Your task to perform on an android device: set the stopwatch Image 0: 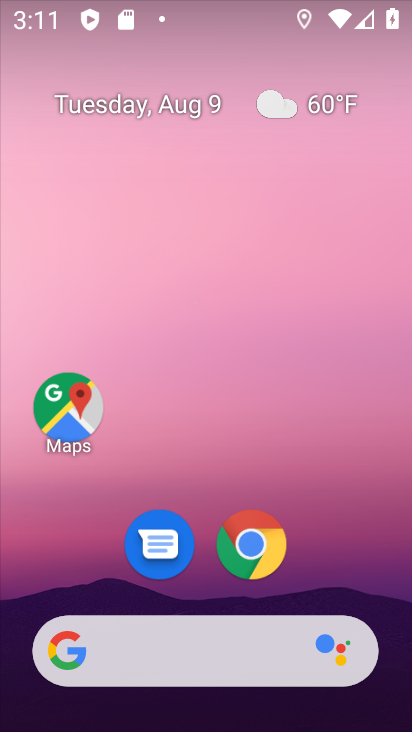
Step 0: drag from (319, 465) to (330, 114)
Your task to perform on an android device: set the stopwatch Image 1: 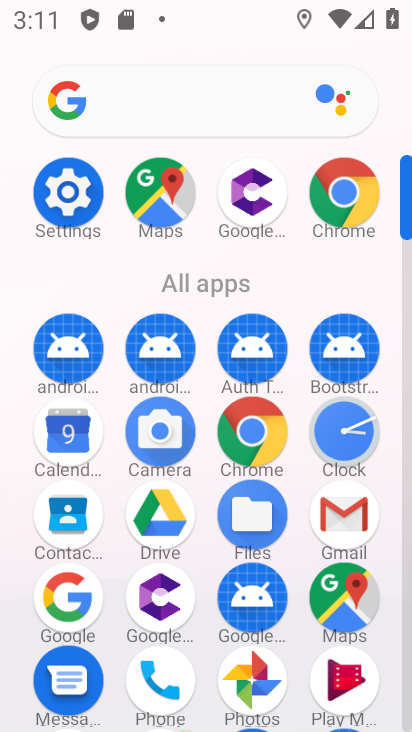
Step 1: click (326, 440)
Your task to perform on an android device: set the stopwatch Image 2: 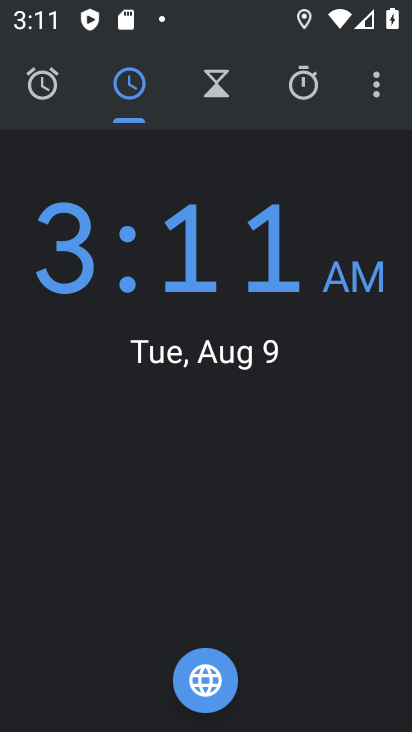
Step 2: click (308, 84)
Your task to perform on an android device: set the stopwatch Image 3: 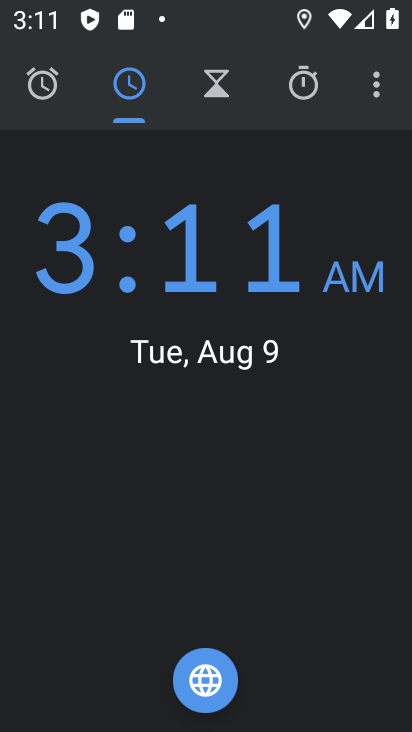
Step 3: click (305, 165)
Your task to perform on an android device: set the stopwatch Image 4: 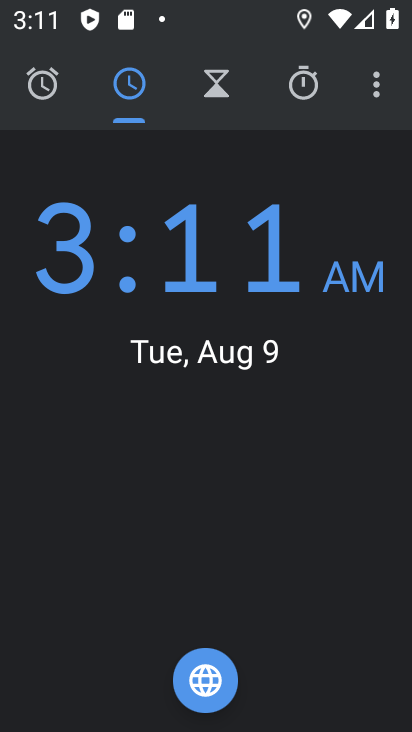
Step 4: click (303, 92)
Your task to perform on an android device: set the stopwatch Image 5: 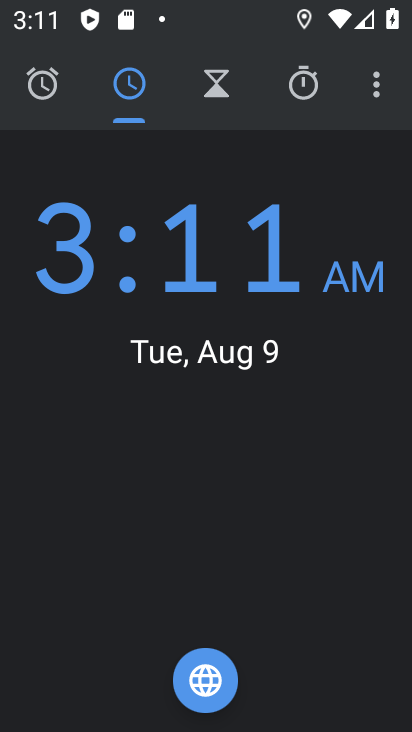
Step 5: task complete